Your task to perform on an android device: turn off location Image 0: 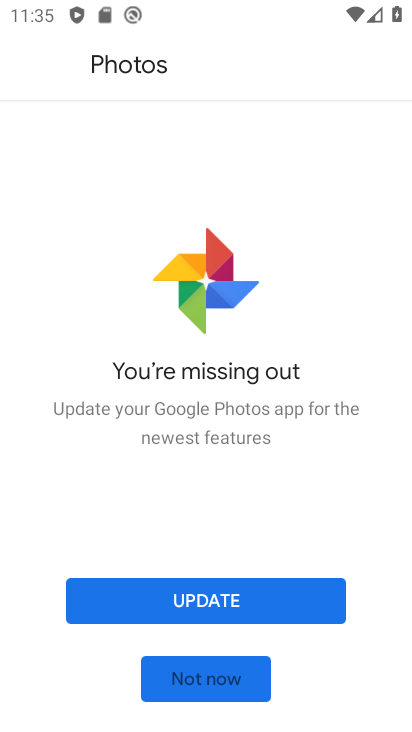
Step 0: press home button
Your task to perform on an android device: turn off location Image 1: 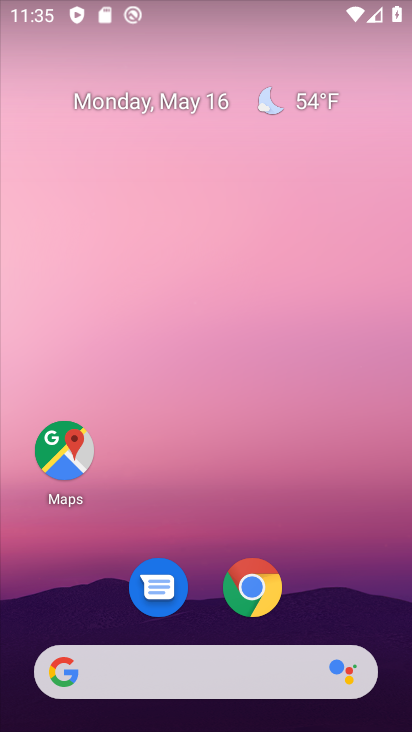
Step 1: drag from (210, 617) to (259, 154)
Your task to perform on an android device: turn off location Image 2: 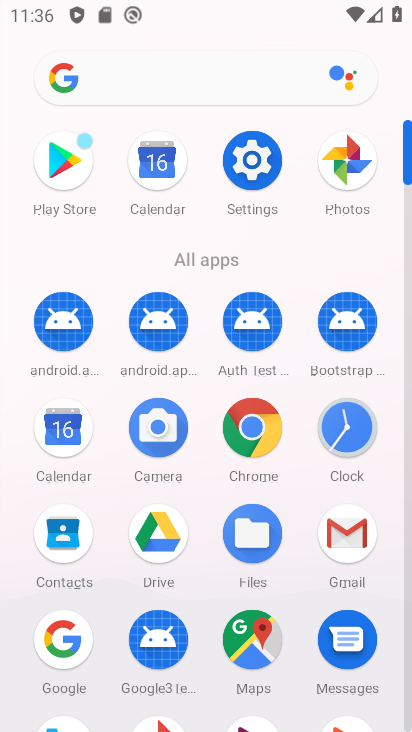
Step 2: click (259, 174)
Your task to perform on an android device: turn off location Image 3: 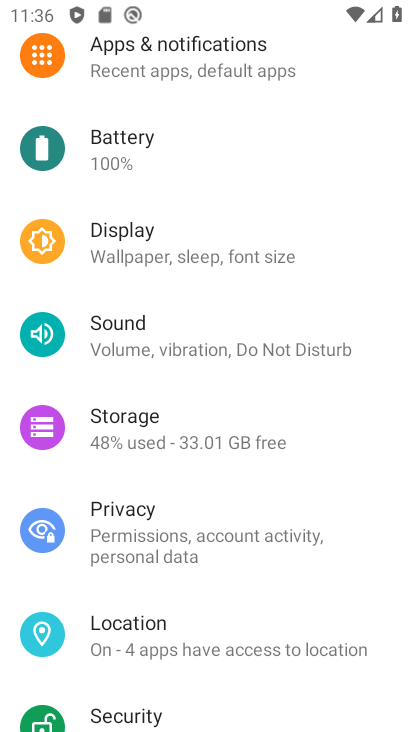
Step 3: click (132, 624)
Your task to perform on an android device: turn off location Image 4: 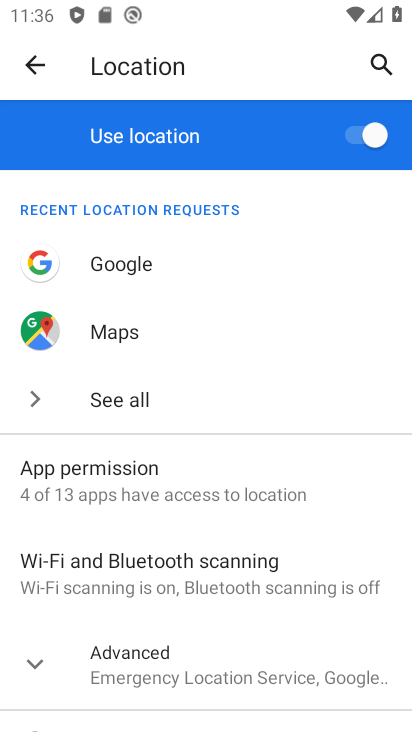
Step 4: click (255, 148)
Your task to perform on an android device: turn off location Image 5: 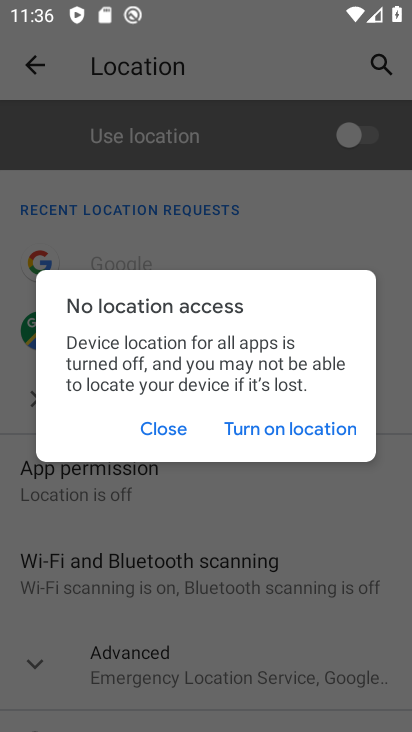
Step 5: click (166, 430)
Your task to perform on an android device: turn off location Image 6: 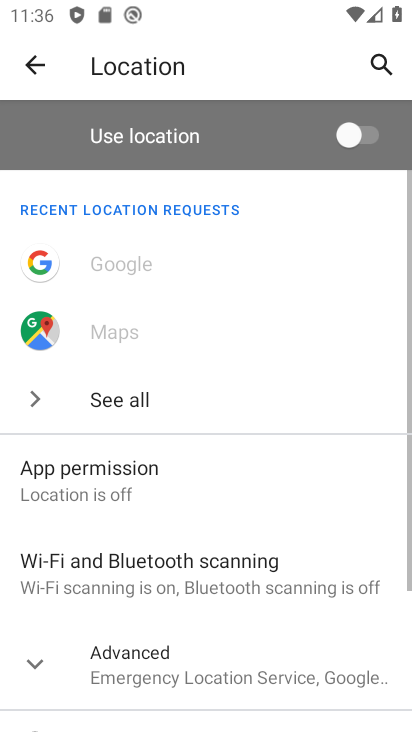
Step 6: task complete